Your task to perform on an android device: set an alarm Image 0: 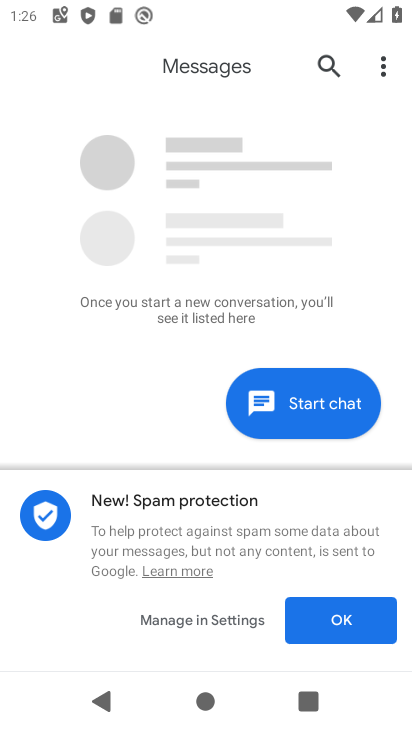
Step 0: press home button
Your task to perform on an android device: set an alarm Image 1: 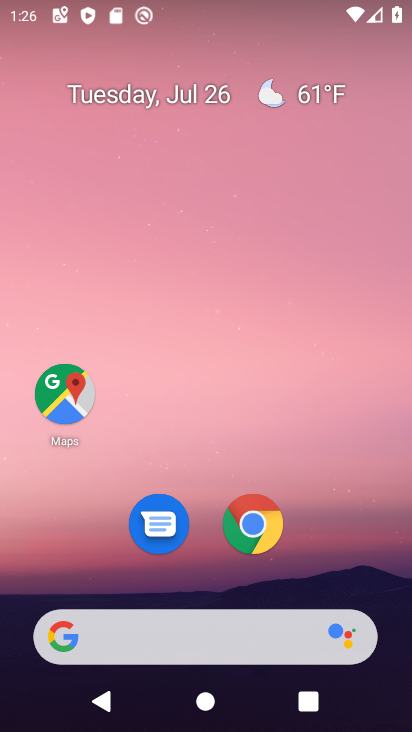
Step 1: drag from (195, 621) to (312, 234)
Your task to perform on an android device: set an alarm Image 2: 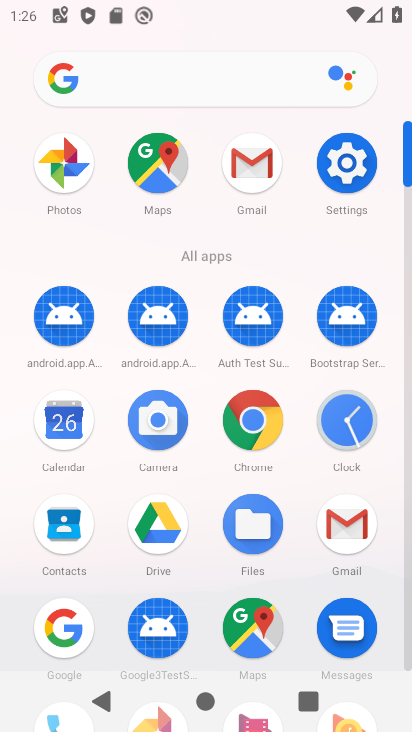
Step 2: click (340, 422)
Your task to perform on an android device: set an alarm Image 3: 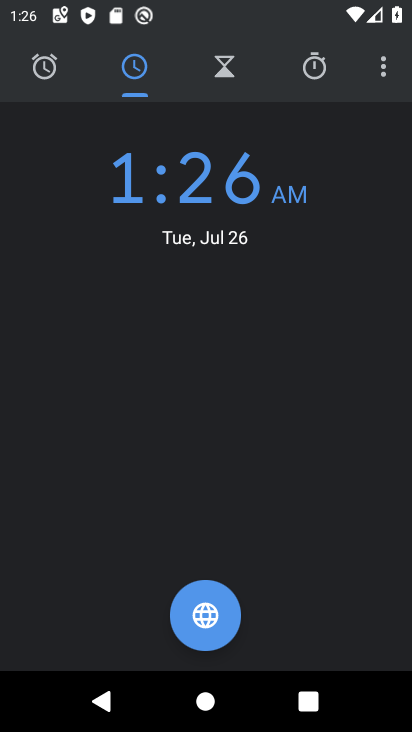
Step 3: click (51, 67)
Your task to perform on an android device: set an alarm Image 4: 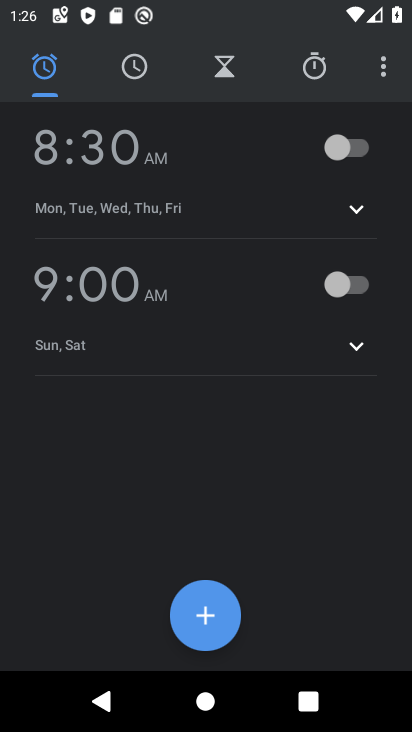
Step 4: click (360, 152)
Your task to perform on an android device: set an alarm Image 5: 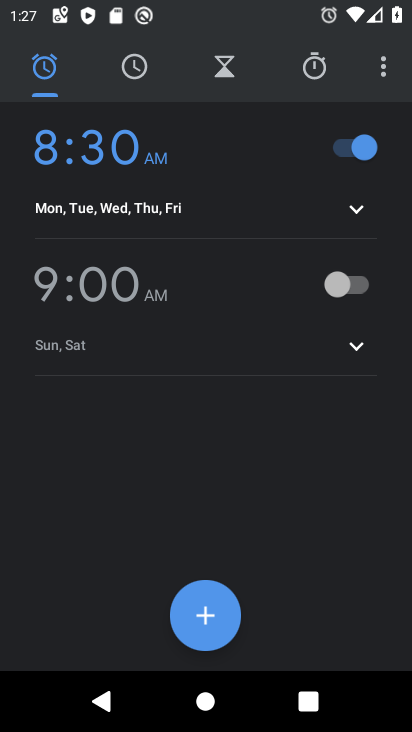
Step 5: task complete